Your task to perform on an android device: Open Youtube and go to the subscriptions tab Image 0: 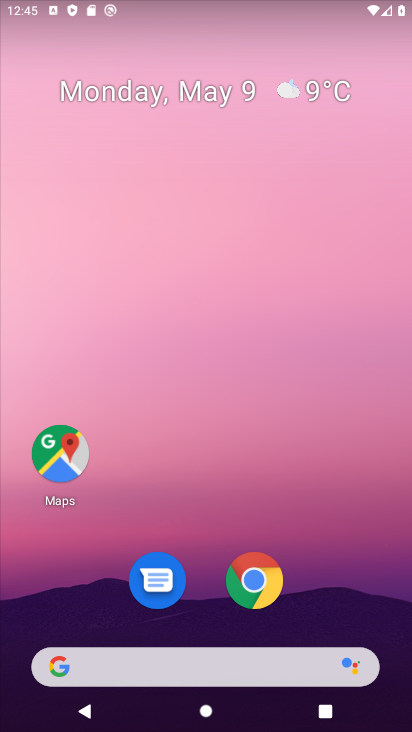
Step 0: drag from (328, 592) to (276, 64)
Your task to perform on an android device: Open Youtube and go to the subscriptions tab Image 1: 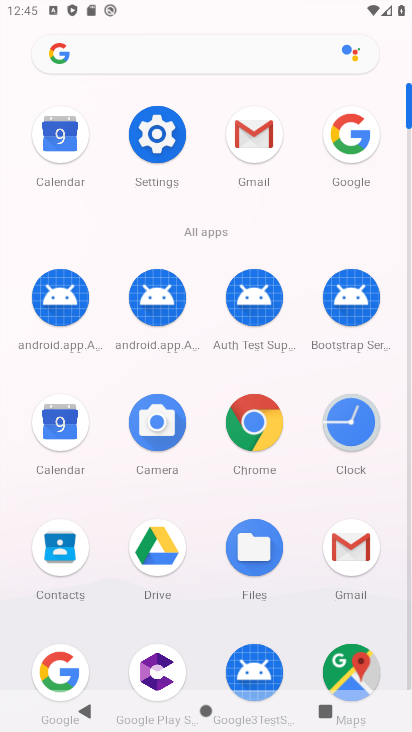
Step 1: drag from (194, 621) to (243, 219)
Your task to perform on an android device: Open Youtube and go to the subscriptions tab Image 2: 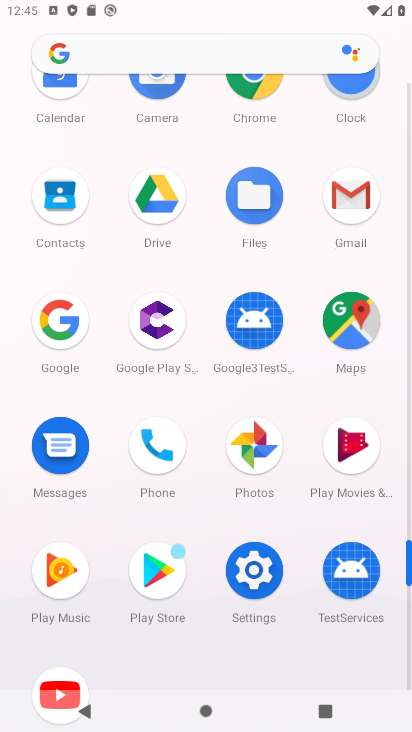
Step 2: click (72, 673)
Your task to perform on an android device: Open Youtube and go to the subscriptions tab Image 3: 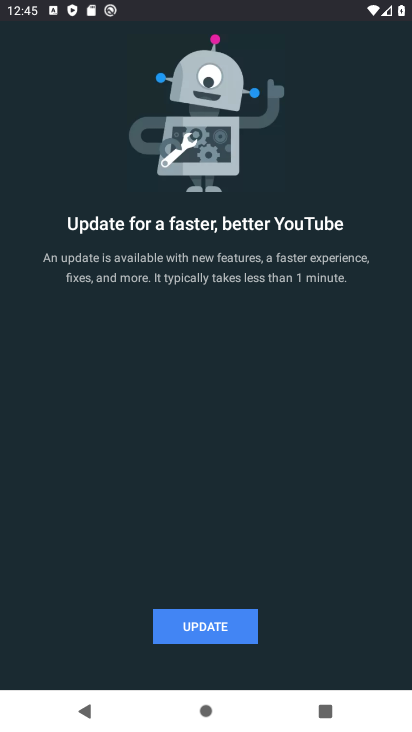
Step 3: click (200, 622)
Your task to perform on an android device: Open Youtube and go to the subscriptions tab Image 4: 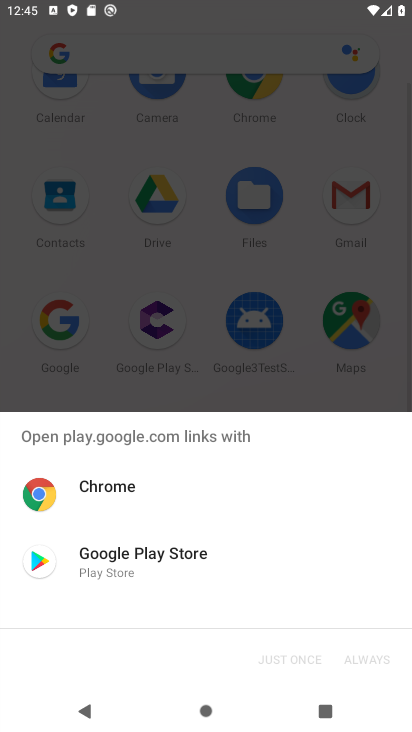
Step 4: click (149, 561)
Your task to perform on an android device: Open Youtube and go to the subscriptions tab Image 5: 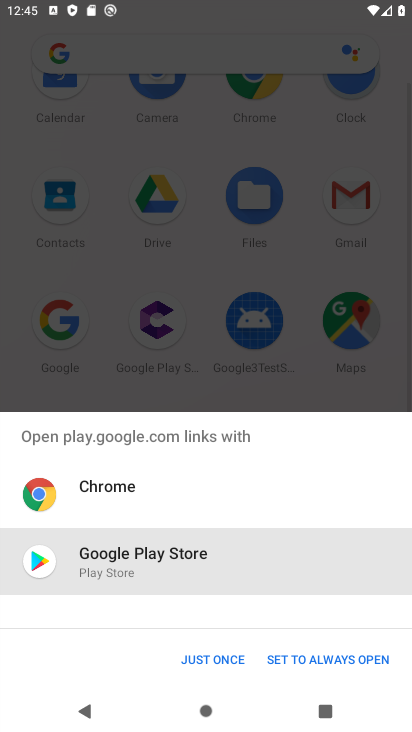
Step 5: click (195, 649)
Your task to perform on an android device: Open Youtube and go to the subscriptions tab Image 6: 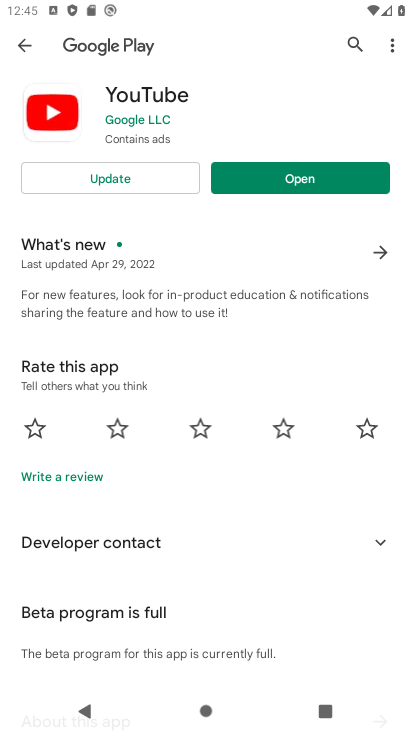
Step 6: click (142, 185)
Your task to perform on an android device: Open Youtube and go to the subscriptions tab Image 7: 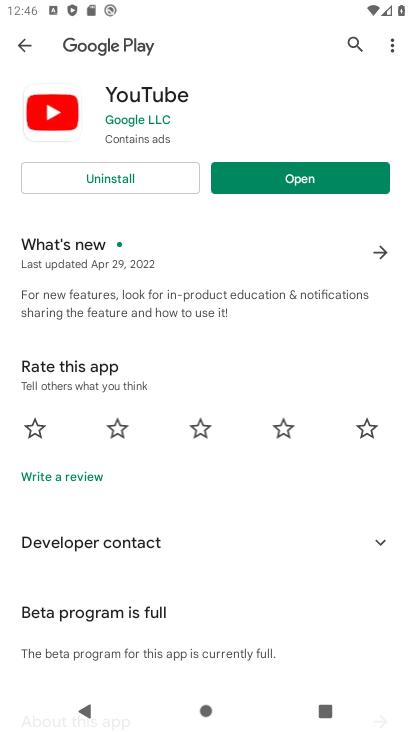
Step 7: click (263, 177)
Your task to perform on an android device: Open Youtube and go to the subscriptions tab Image 8: 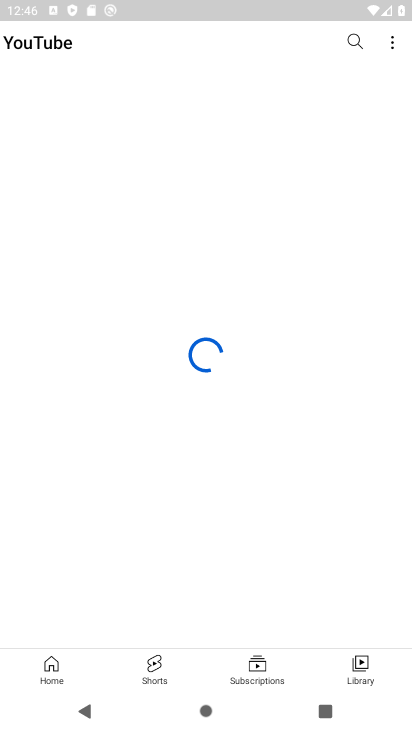
Step 8: click (260, 664)
Your task to perform on an android device: Open Youtube and go to the subscriptions tab Image 9: 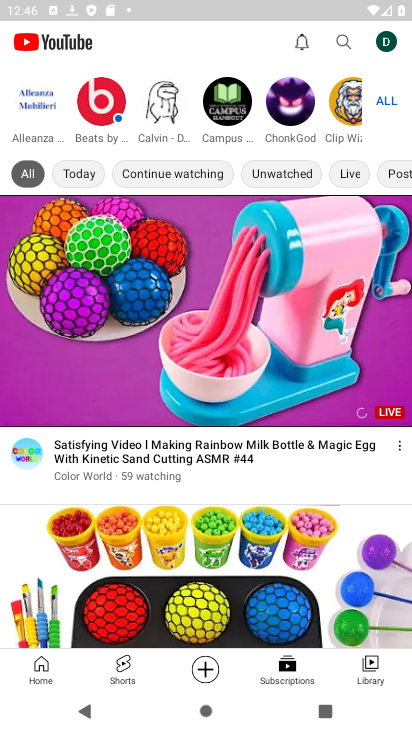
Step 9: task complete